Your task to perform on an android device: turn off javascript in the chrome app Image 0: 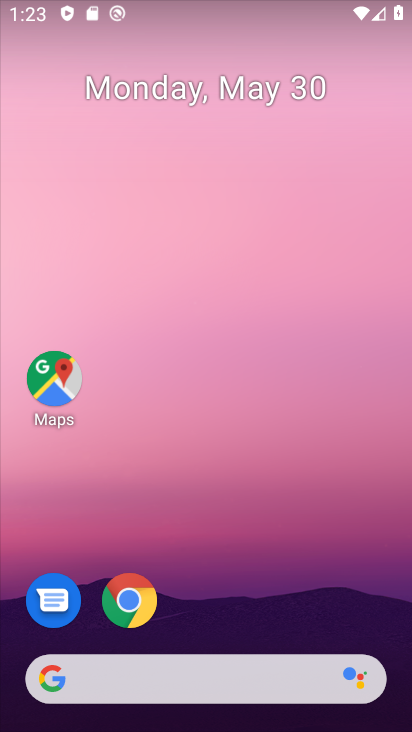
Step 0: click (143, 609)
Your task to perform on an android device: turn off javascript in the chrome app Image 1: 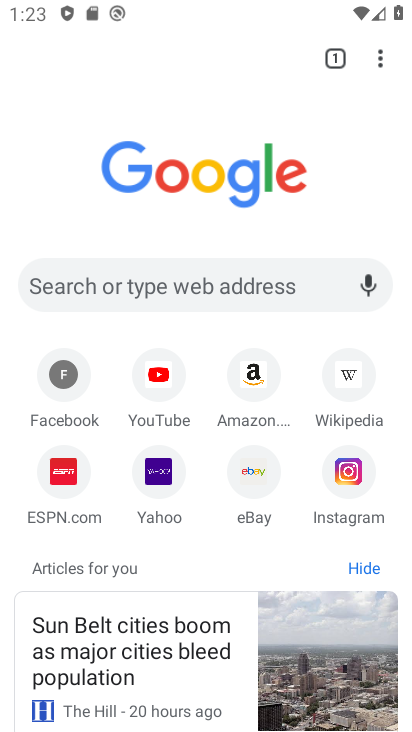
Step 1: click (385, 55)
Your task to perform on an android device: turn off javascript in the chrome app Image 2: 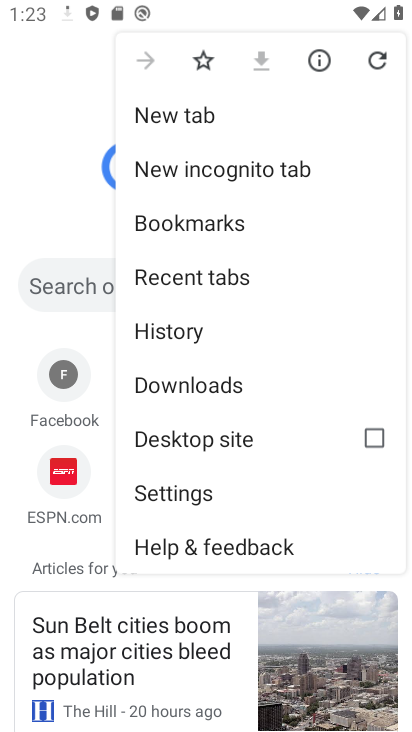
Step 2: click (219, 481)
Your task to perform on an android device: turn off javascript in the chrome app Image 3: 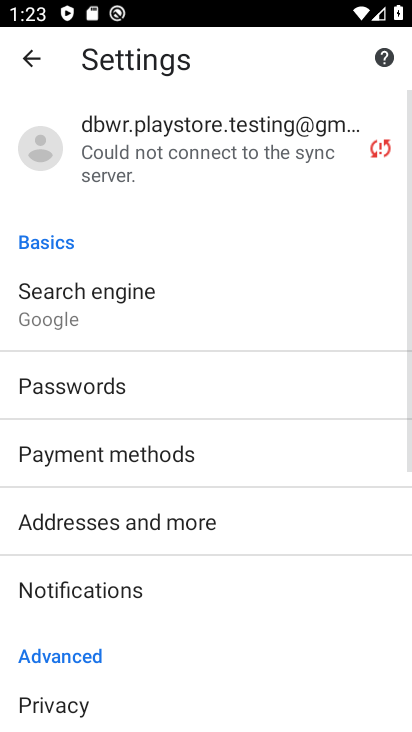
Step 3: drag from (151, 649) to (99, 235)
Your task to perform on an android device: turn off javascript in the chrome app Image 4: 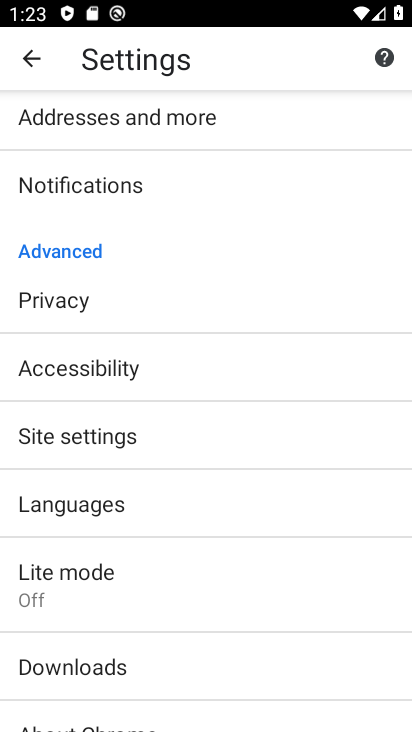
Step 4: click (72, 439)
Your task to perform on an android device: turn off javascript in the chrome app Image 5: 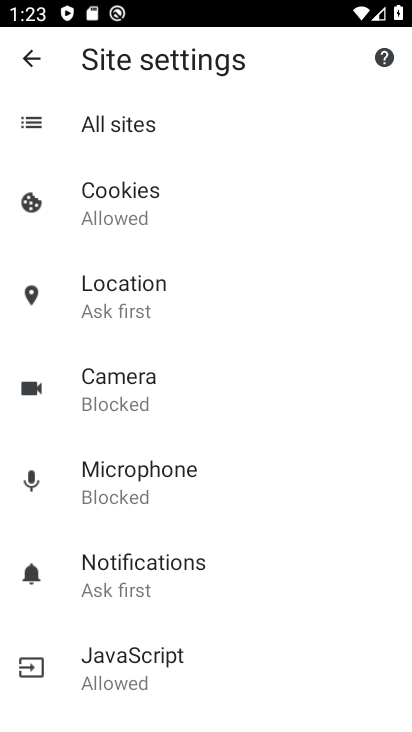
Step 5: click (127, 682)
Your task to perform on an android device: turn off javascript in the chrome app Image 6: 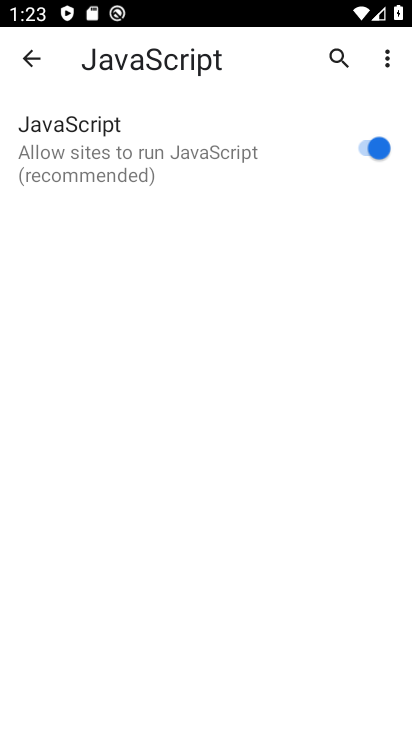
Step 6: click (357, 157)
Your task to perform on an android device: turn off javascript in the chrome app Image 7: 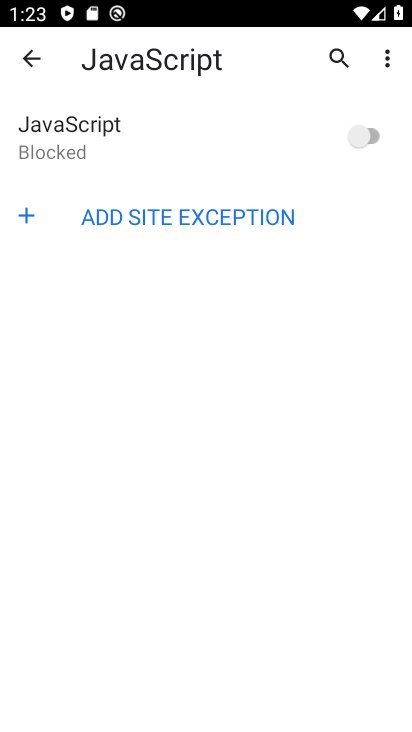
Step 7: task complete